Your task to perform on an android device: install app "Life360: Find Family & Friends" Image 0: 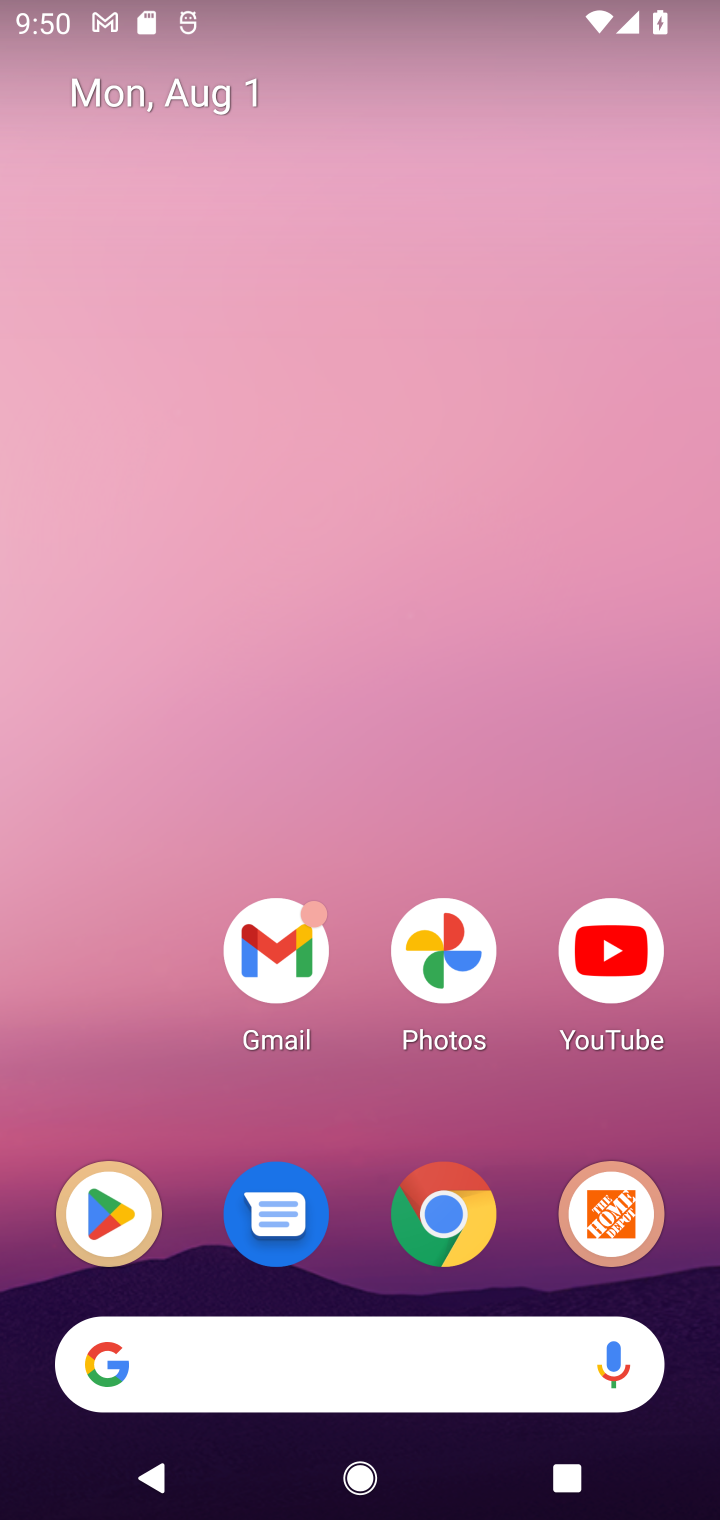
Step 0: press home button
Your task to perform on an android device: install app "Life360: Find Family & Friends" Image 1: 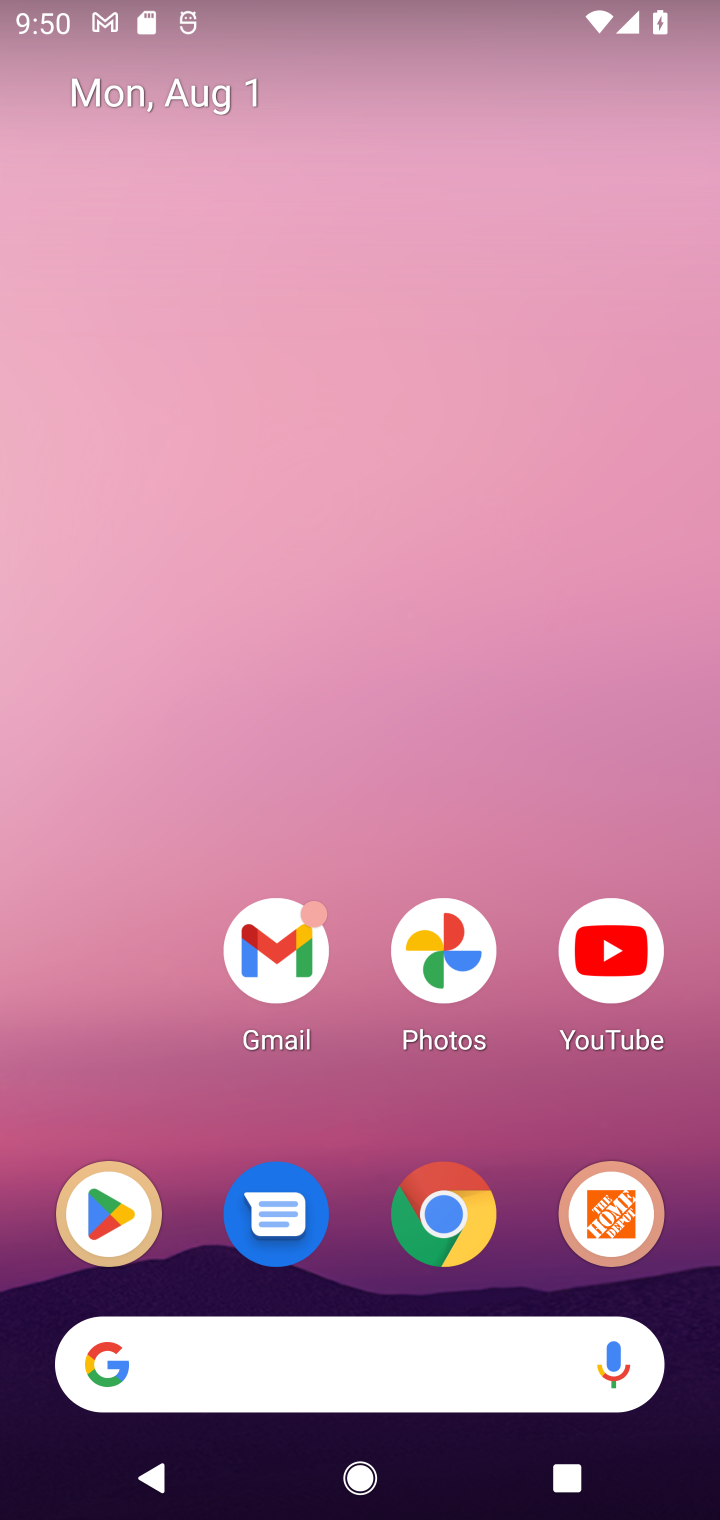
Step 1: click (88, 1197)
Your task to perform on an android device: install app "Life360: Find Family & Friends" Image 2: 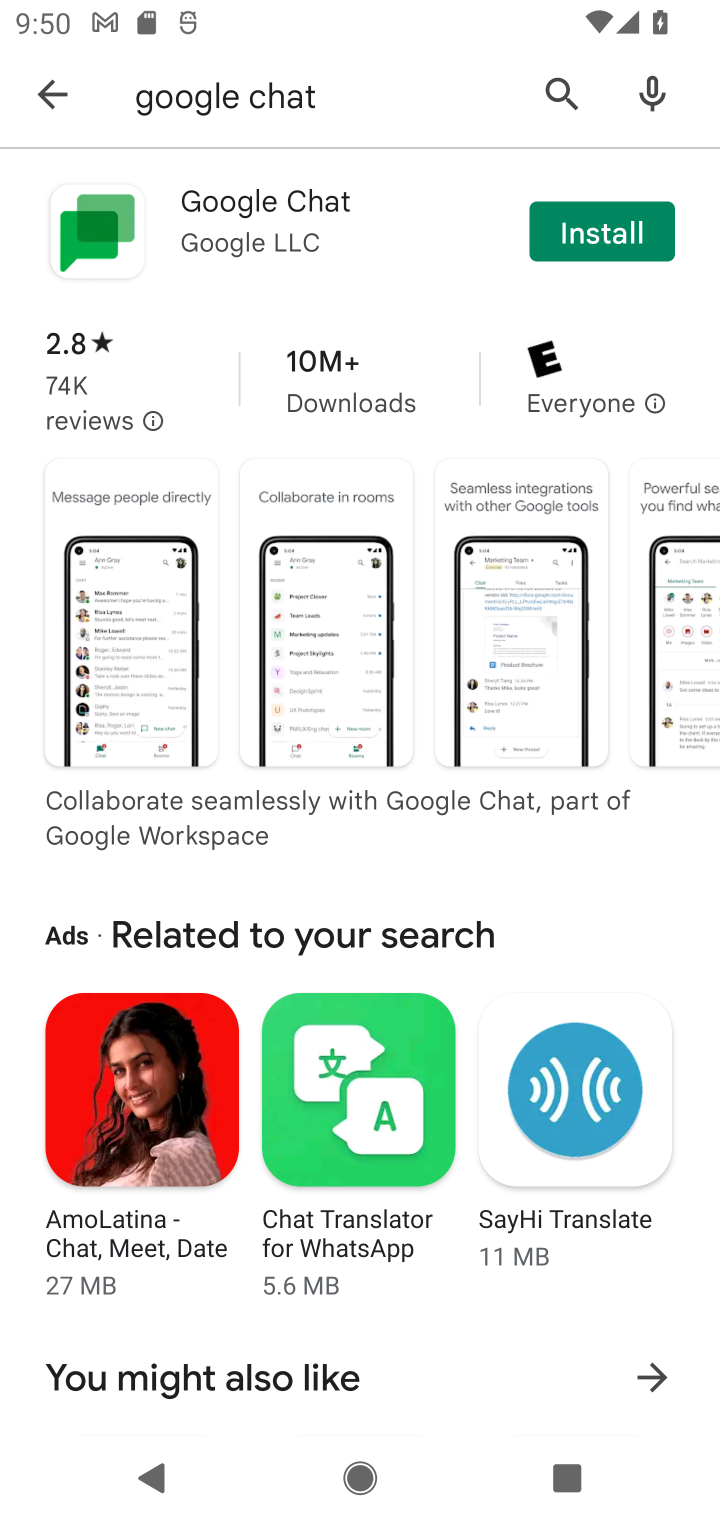
Step 2: click (570, 76)
Your task to perform on an android device: install app "Life360: Find Family & Friends" Image 3: 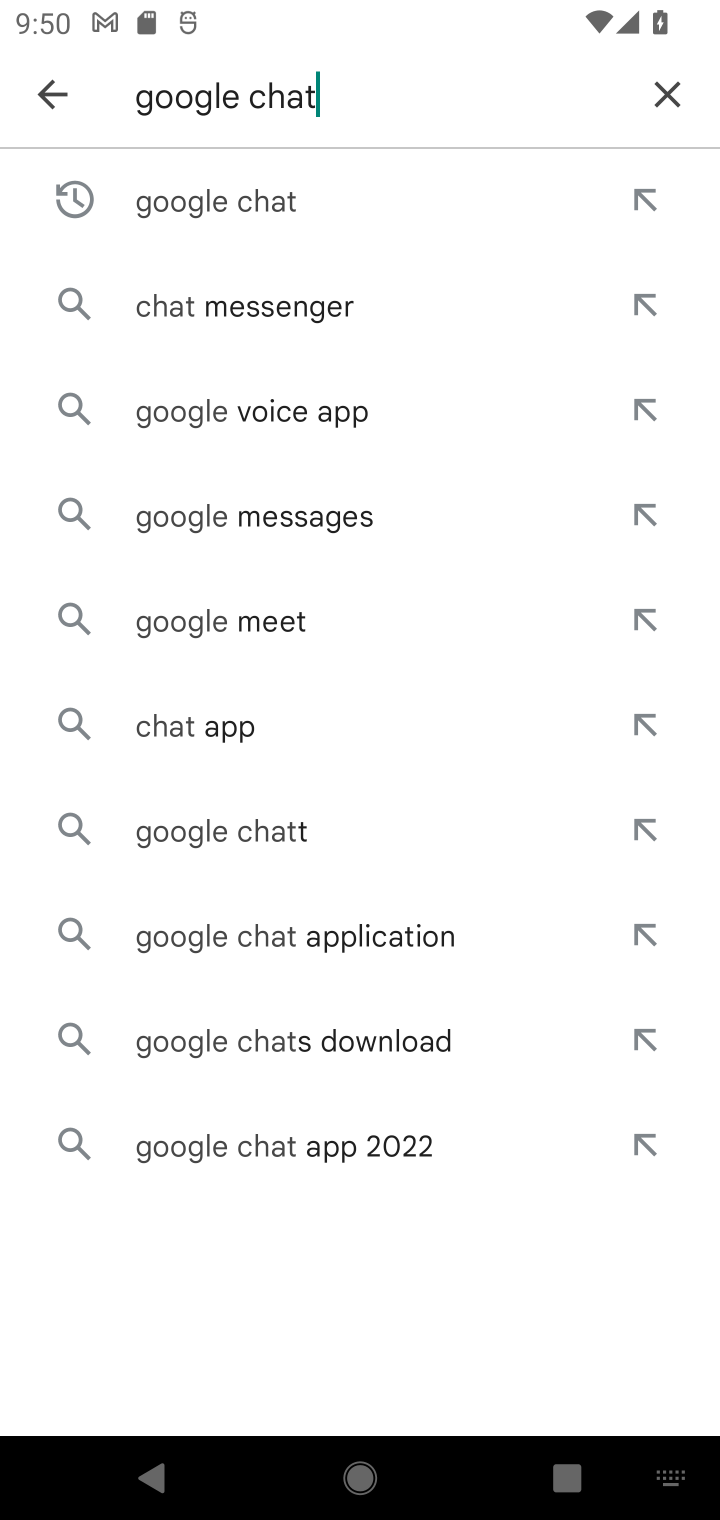
Step 3: click (654, 87)
Your task to perform on an android device: install app "Life360: Find Family & Friends" Image 4: 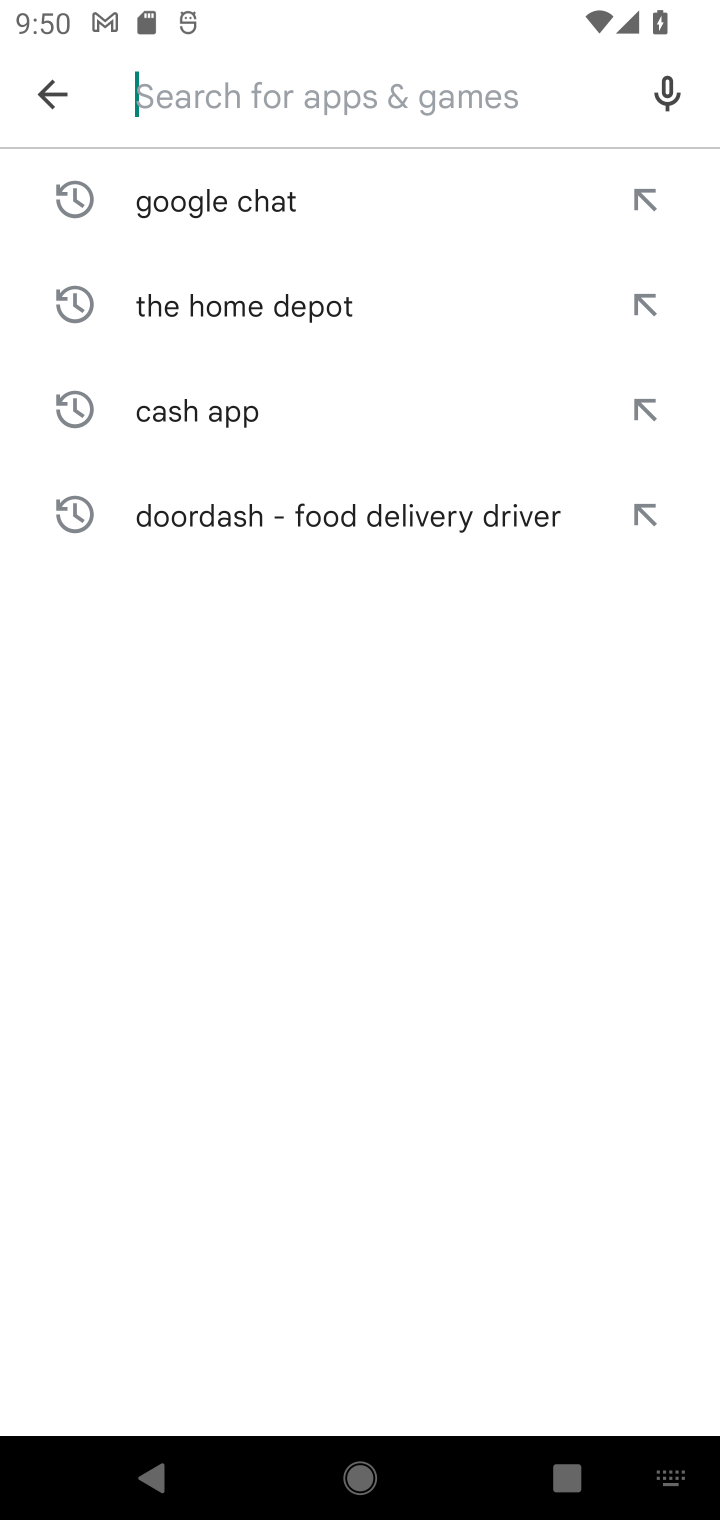
Step 4: type "Life360: Find Family & Friends"
Your task to perform on an android device: install app "Life360: Find Family & Friends" Image 5: 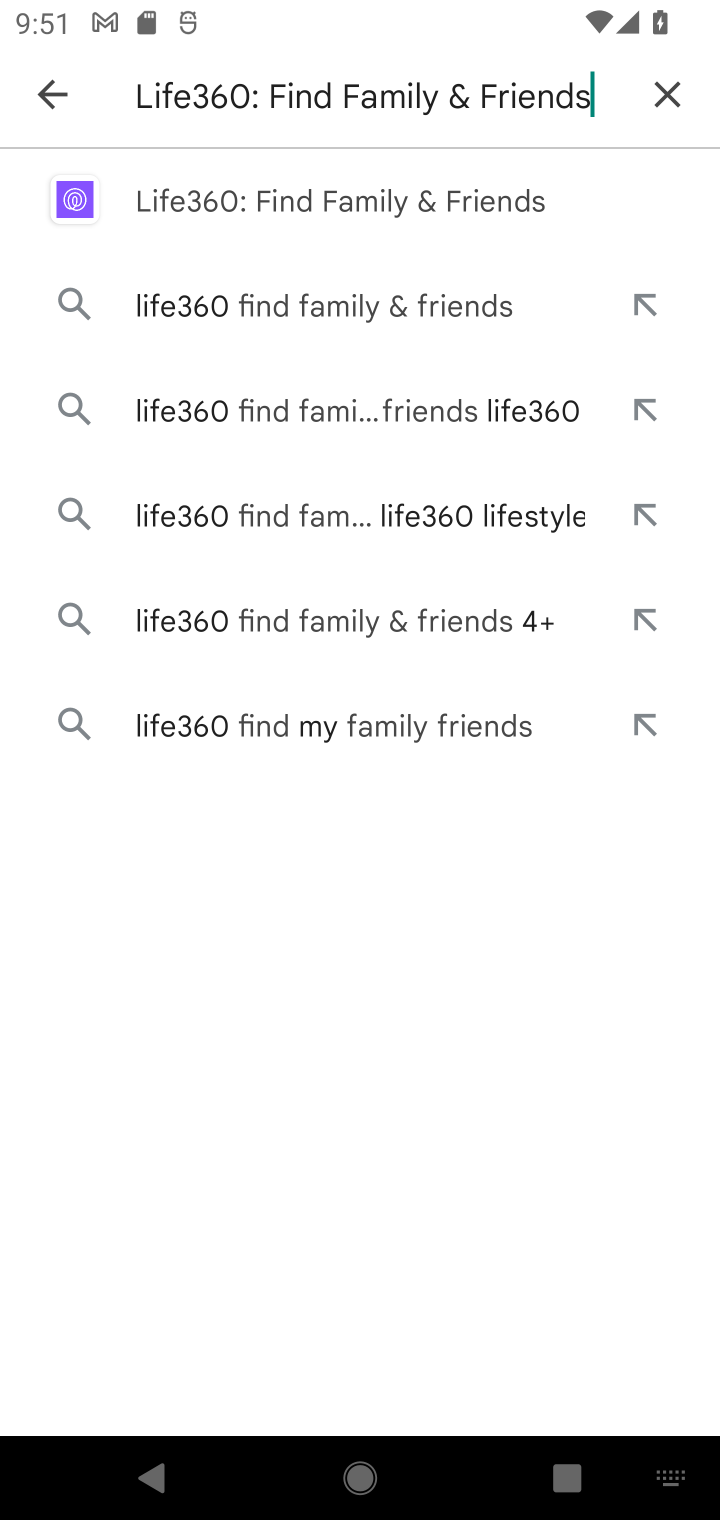
Step 5: click (290, 193)
Your task to perform on an android device: install app "Life360: Find Family & Friends" Image 6: 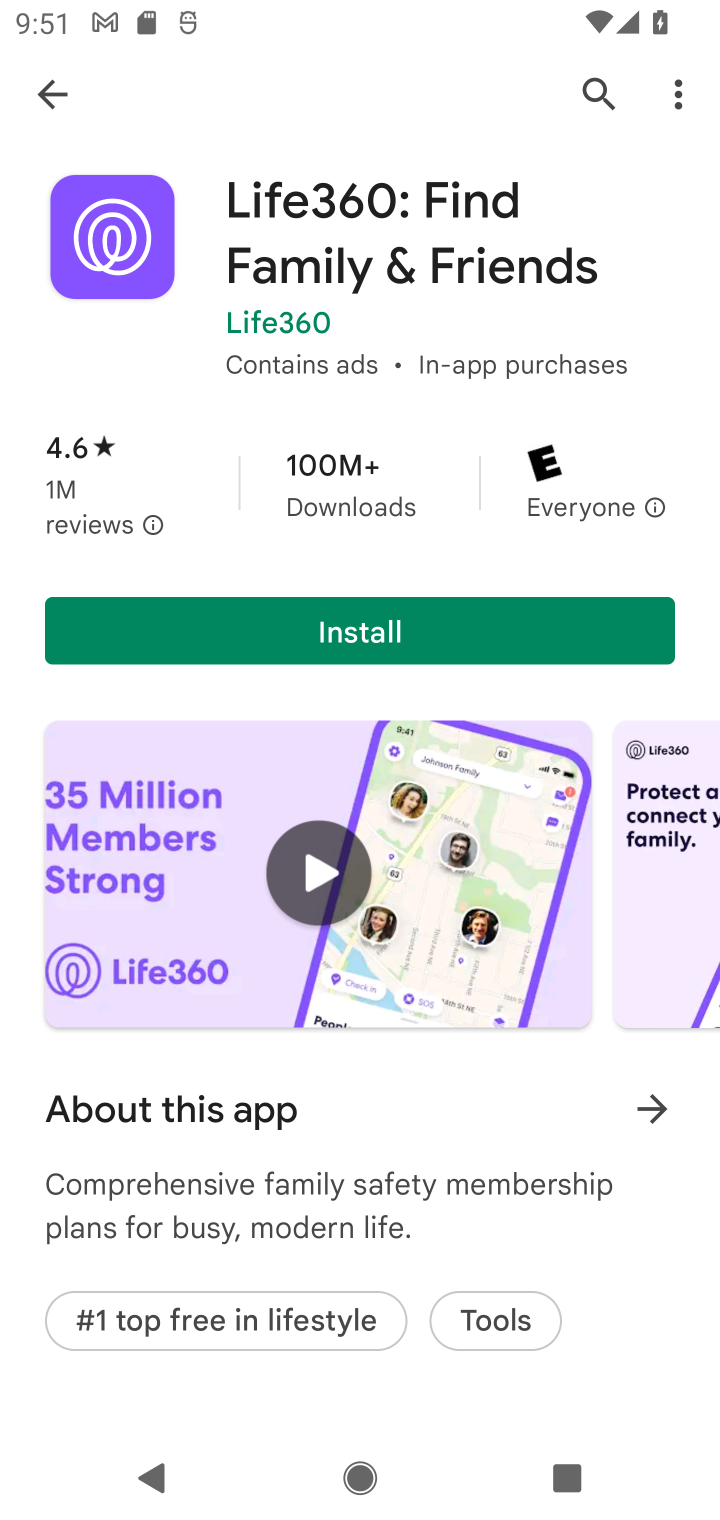
Step 6: click (421, 641)
Your task to perform on an android device: install app "Life360: Find Family & Friends" Image 7: 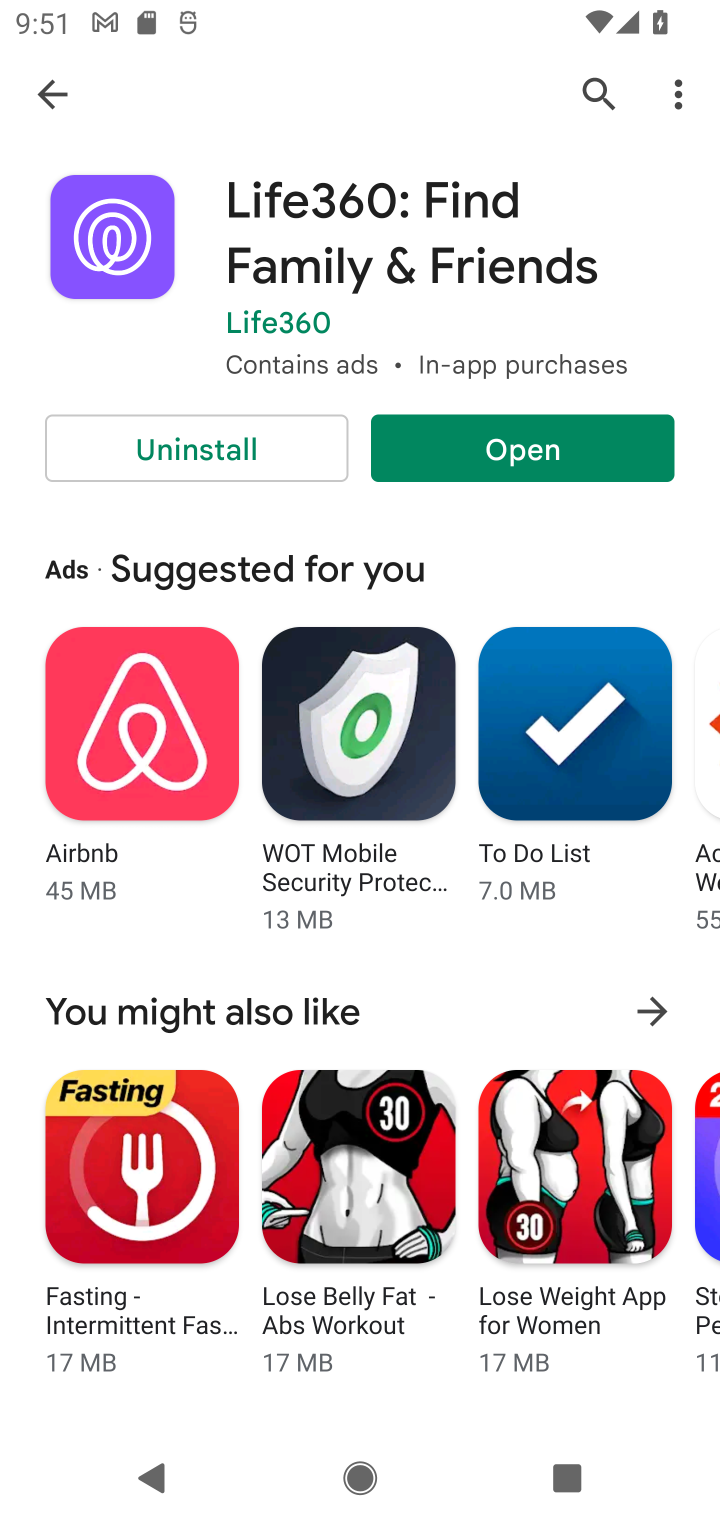
Step 7: task complete